Your task to perform on an android device: Open battery settings Image 0: 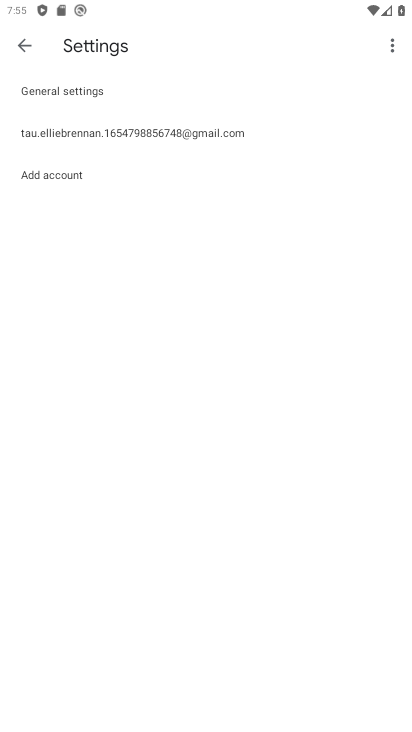
Step 0: press home button
Your task to perform on an android device: Open battery settings Image 1: 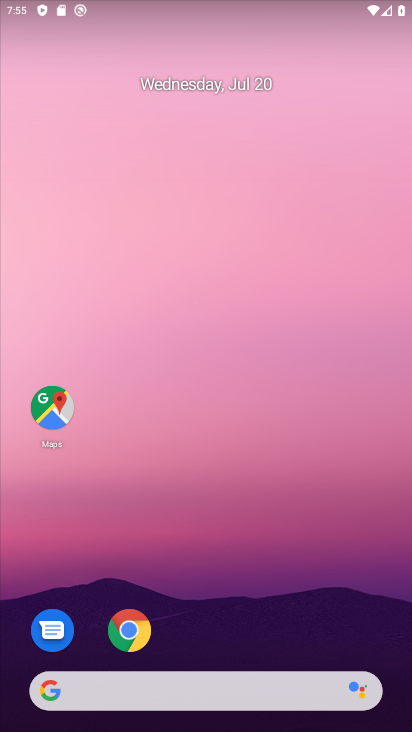
Step 1: drag from (313, 621) to (277, 73)
Your task to perform on an android device: Open battery settings Image 2: 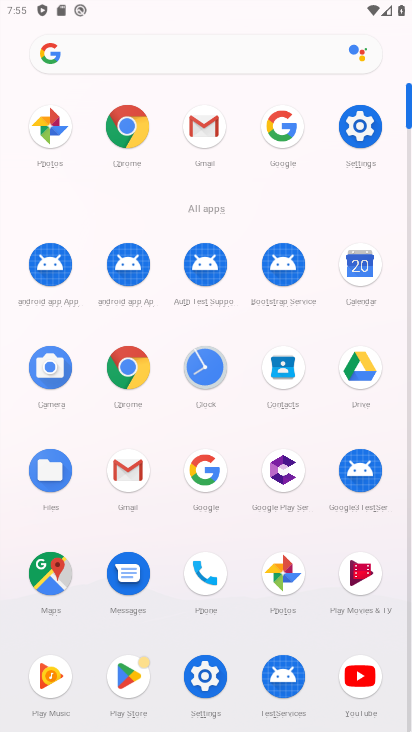
Step 2: click (363, 123)
Your task to perform on an android device: Open battery settings Image 3: 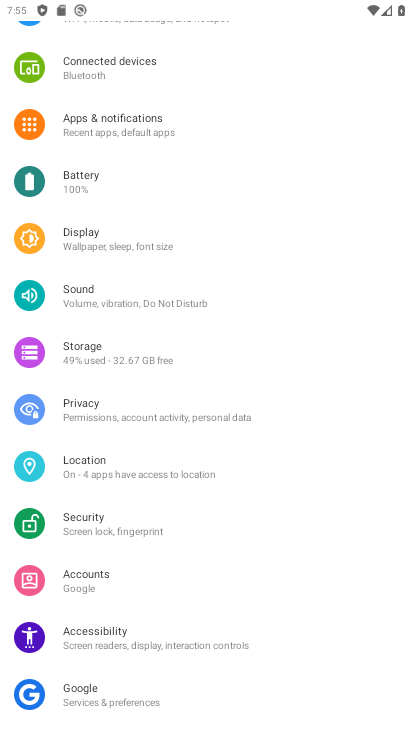
Step 3: click (113, 185)
Your task to perform on an android device: Open battery settings Image 4: 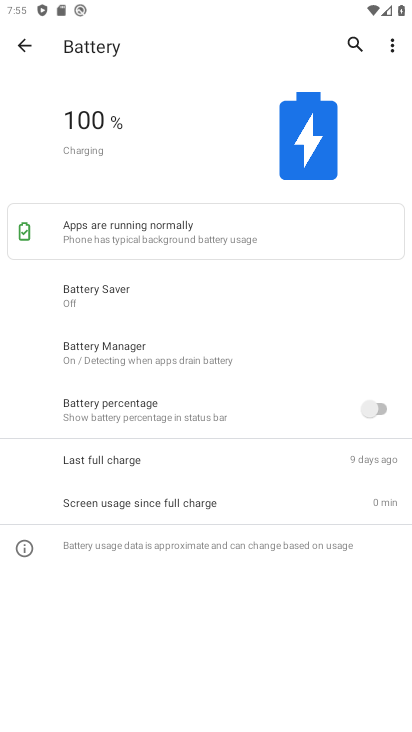
Step 4: task complete